Your task to perform on an android device: Is it going to rain this weekend? Image 0: 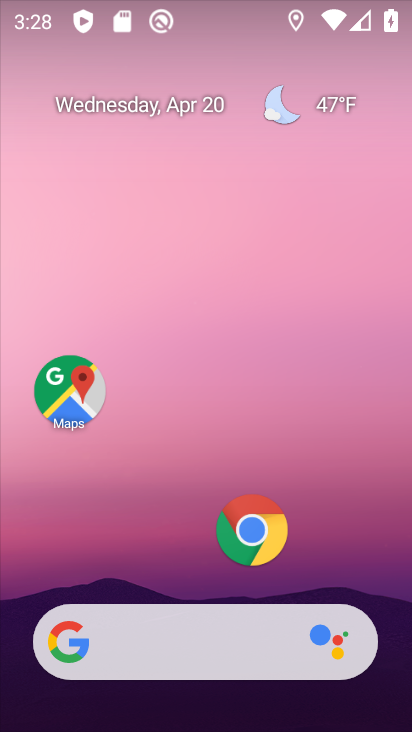
Step 0: drag from (159, 536) to (229, 71)
Your task to perform on an android device: Is it going to rain this weekend? Image 1: 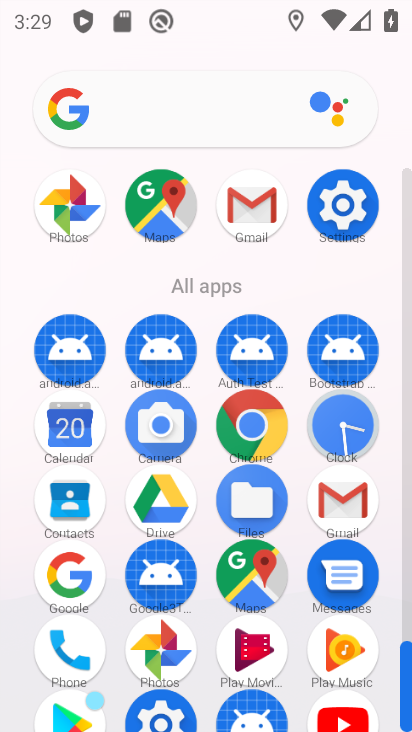
Step 1: click (192, 113)
Your task to perform on an android device: Is it going to rain this weekend? Image 2: 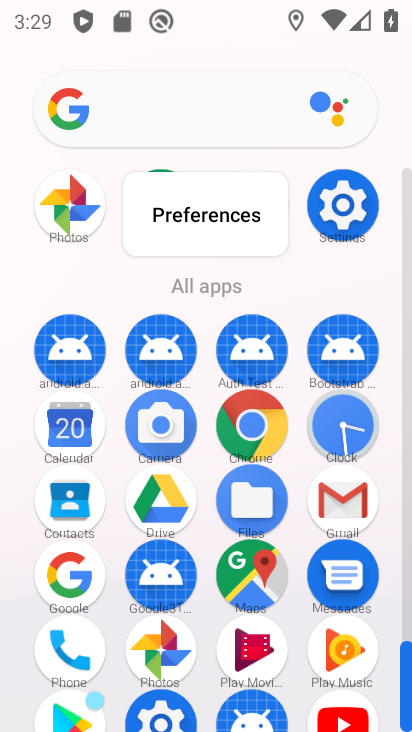
Step 2: click (159, 110)
Your task to perform on an android device: Is it going to rain this weekend? Image 3: 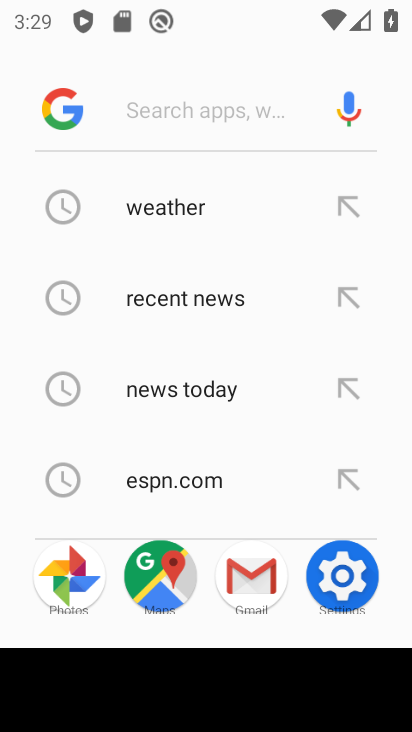
Step 3: click (194, 206)
Your task to perform on an android device: Is it going to rain this weekend? Image 4: 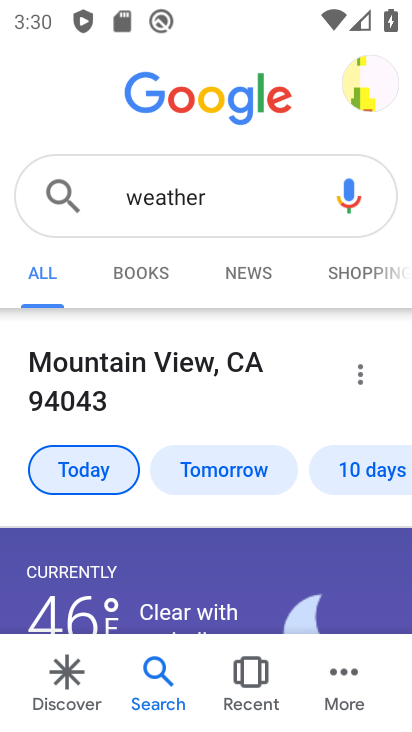
Step 4: click (366, 468)
Your task to perform on an android device: Is it going to rain this weekend? Image 5: 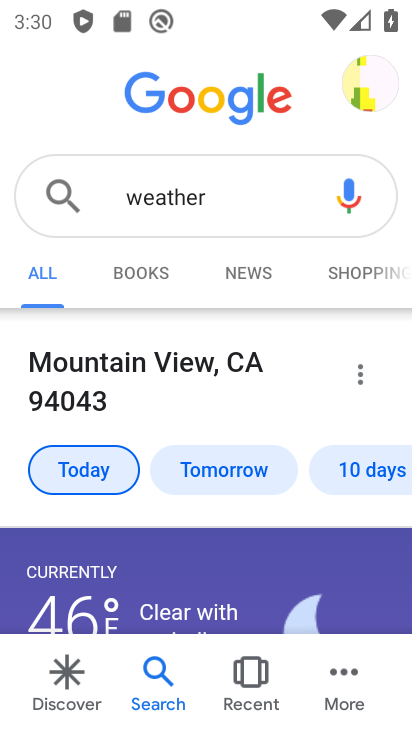
Step 5: task complete